Your task to perform on an android device: What is the speed of a tiger? Image 0: 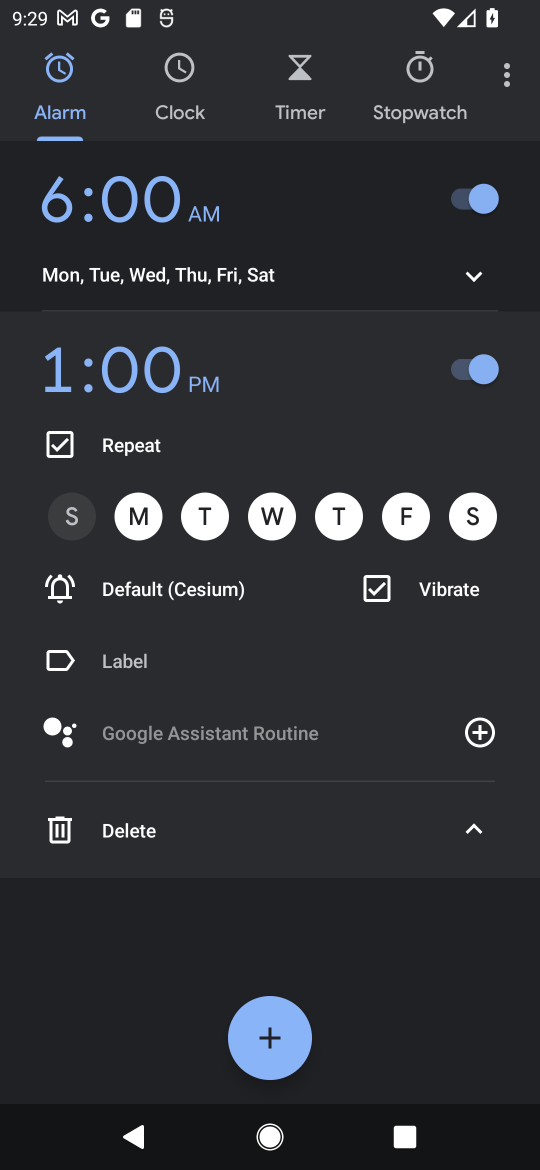
Step 0: press home button
Your task to perform on an android device: What is the speed of a tiger? Image 1: 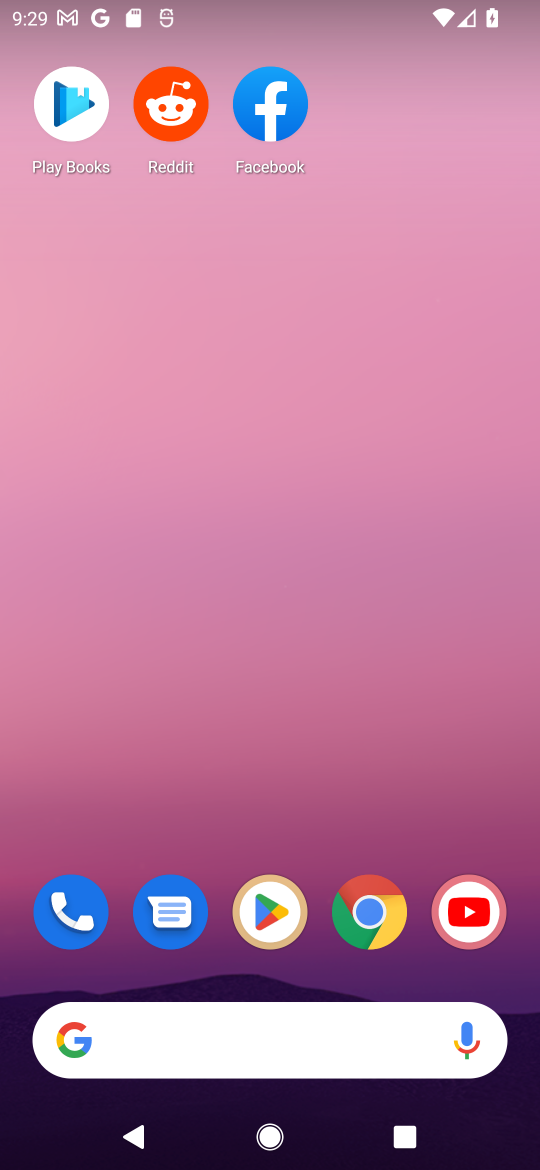
Step 1: click (375, 909)
Your task to perform on an android device: What is the speed of a tiger? Image 2: 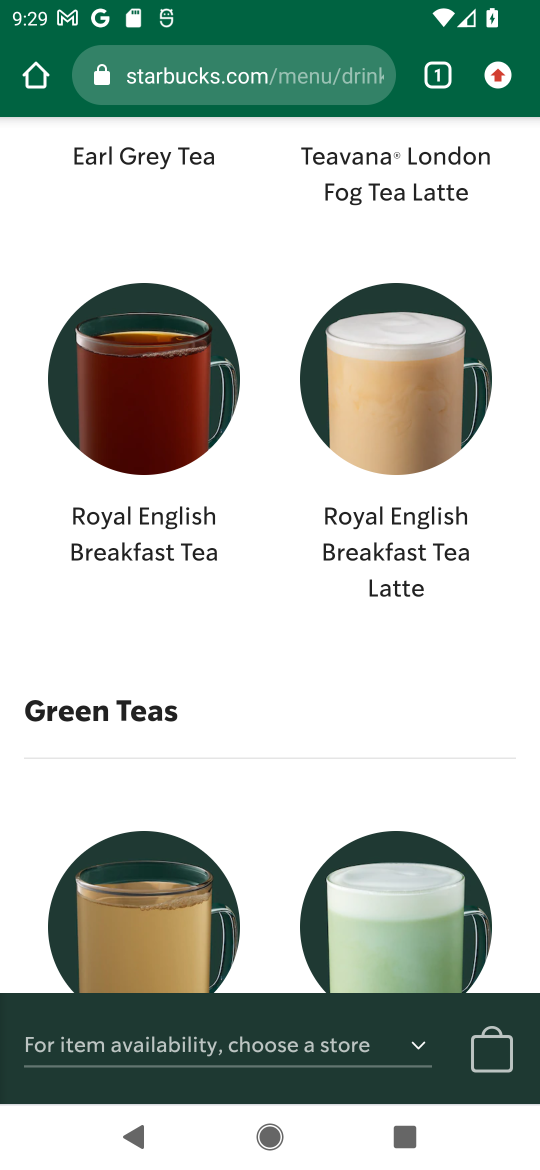
Step 2: click (220, 51)
Your task to perform on an android device: What is the speed of a tiger? Image 3: 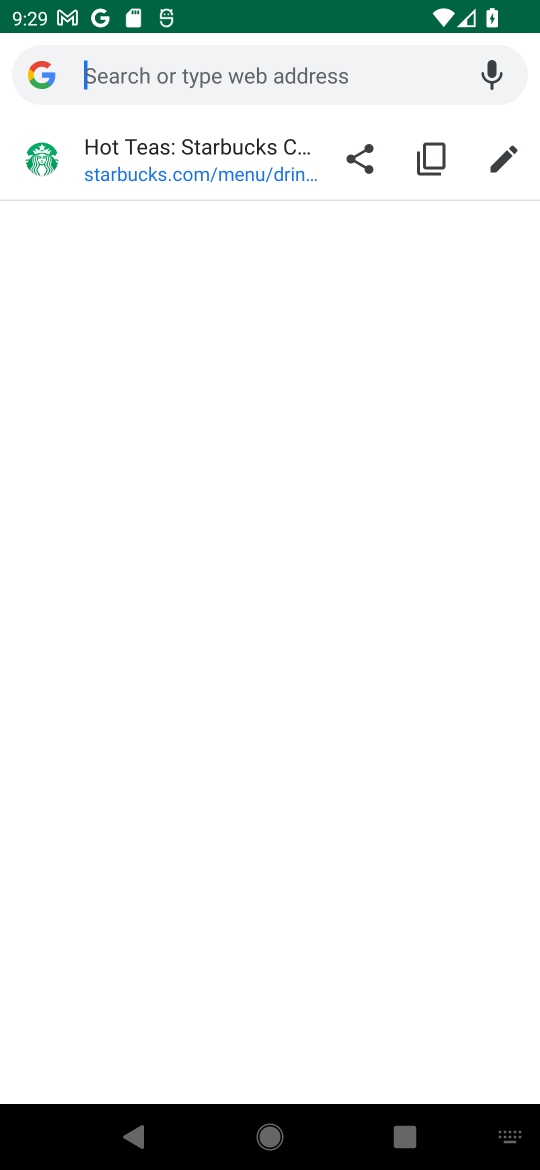
Step 3: type "speed of tiger"
Your task to perform on an android device: What is the speed of a tiger? Image 4: 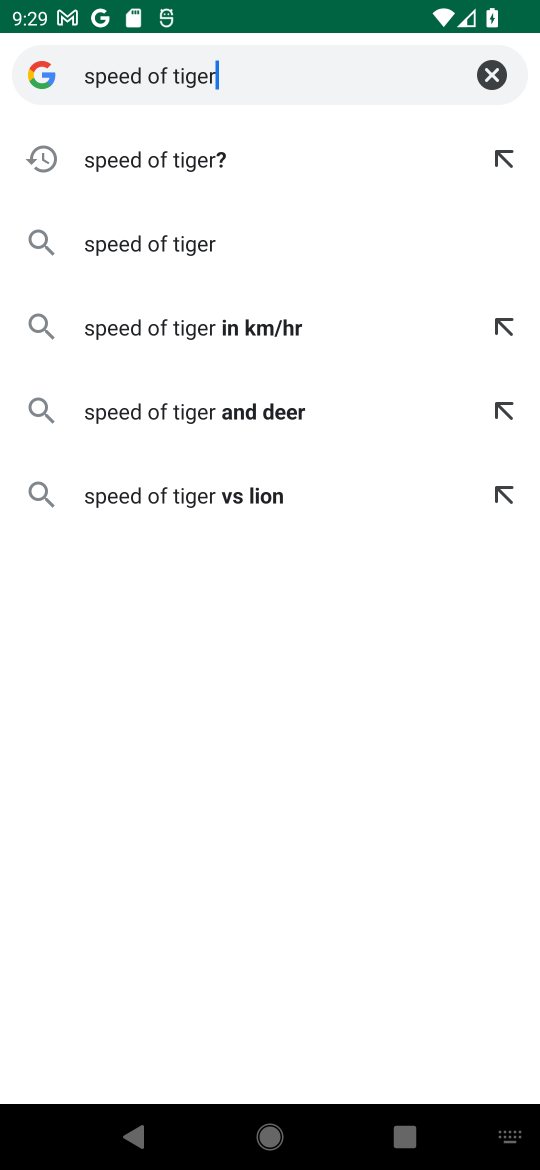
Step 4: click (169, 154)
Your task to perform on an android device: What is the speed of a tiger? Image 5: 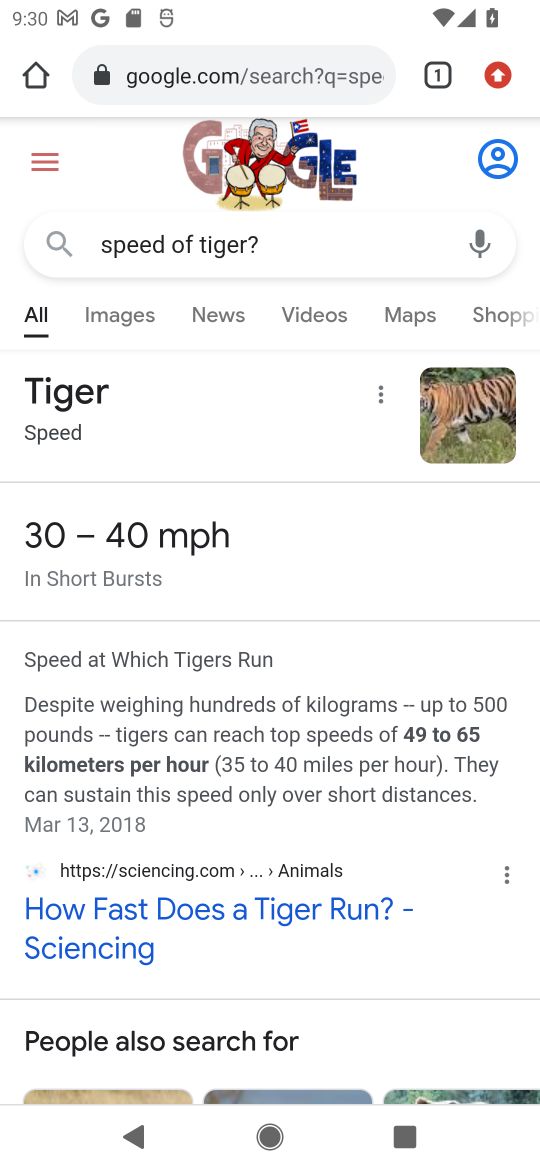
Step 5: task complete